Your task to perform on an android device: toggle notification dots Image 0: 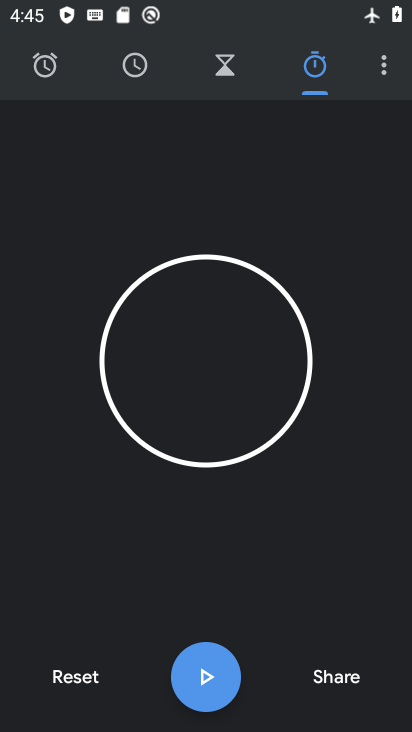
Step 0: press home button
Your task to perform on an android device: toggle notification dots Image 1: 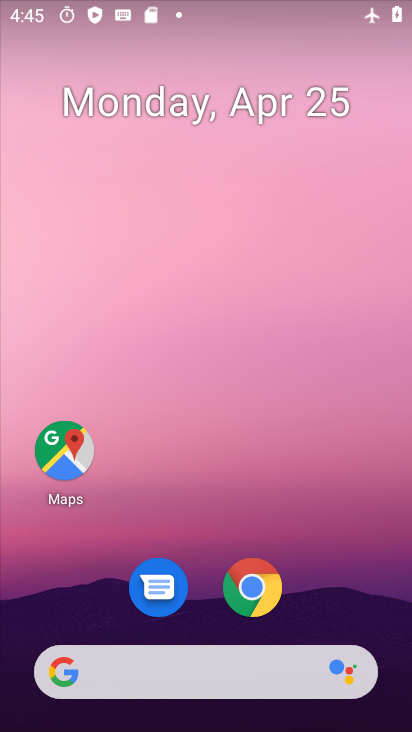
Step 1: drag from (289, 379) to (257, 83)
Your task to perform on an android device: toggle notification dots Image 2: 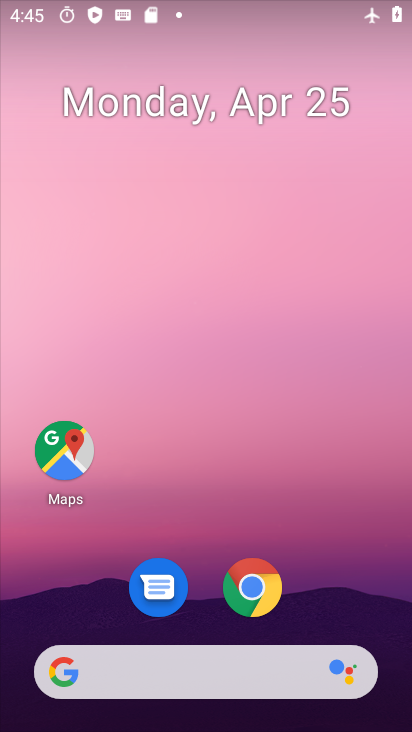
Step 2: drag from (327, 639) to (365, 136)
Your task to perform on an android device: toggle notification dots Image 3: 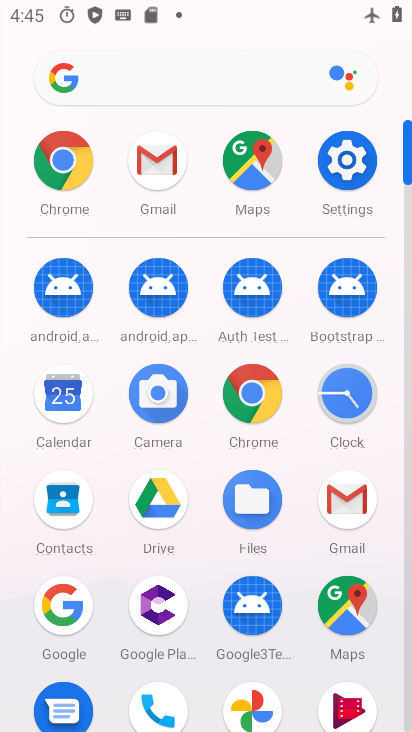
Step 3: click (346, 160)
Your task to perform on an android device: toggle notification dots Image 4: 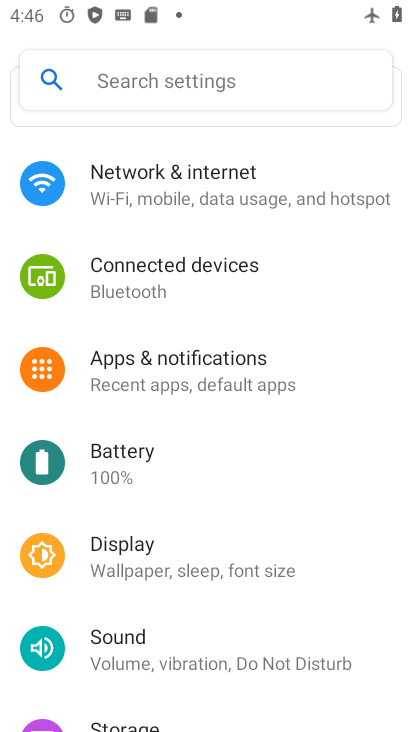
Step 4: click (150, 354)
Your task to perform on an android device: toggle notification dots Image 5: 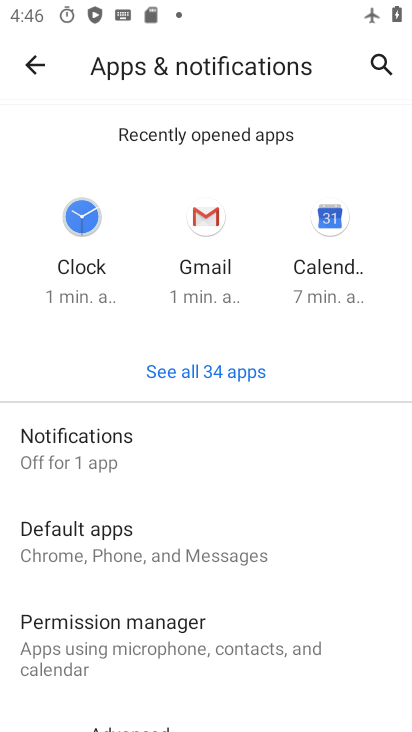
Step 5: click (112, 446)
Your task to perform on an android device: toggle notification dots Image 6: 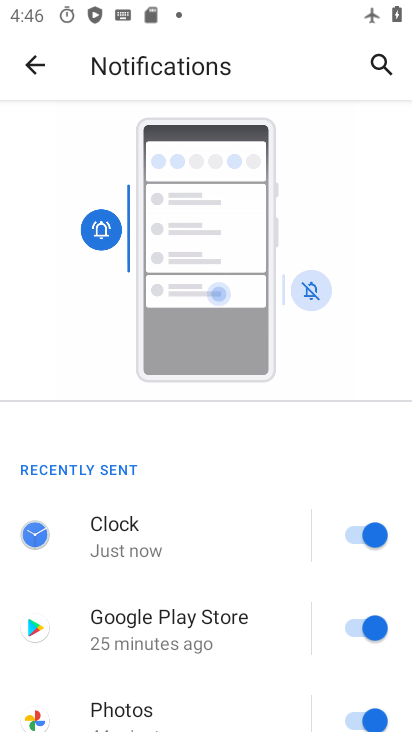
Step 6: drag from (250, 611) to (321, 23)
Your task to perform on an android device: toggle notification dots Image 7: 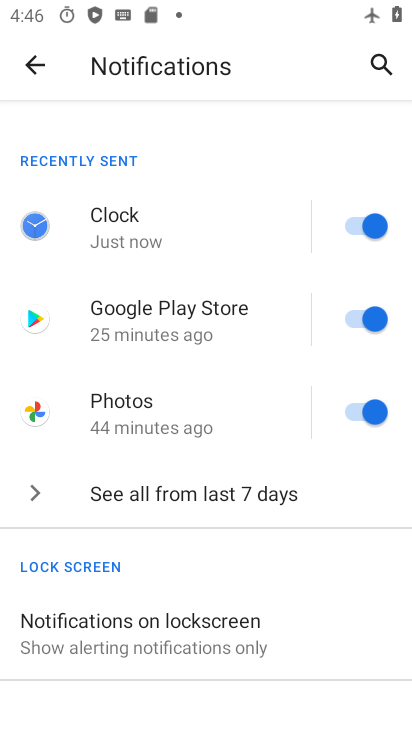
Step 7: drag from (202, 621) to (201, 102)
Your task to perform on an android device: toggle notification dots Image 8: 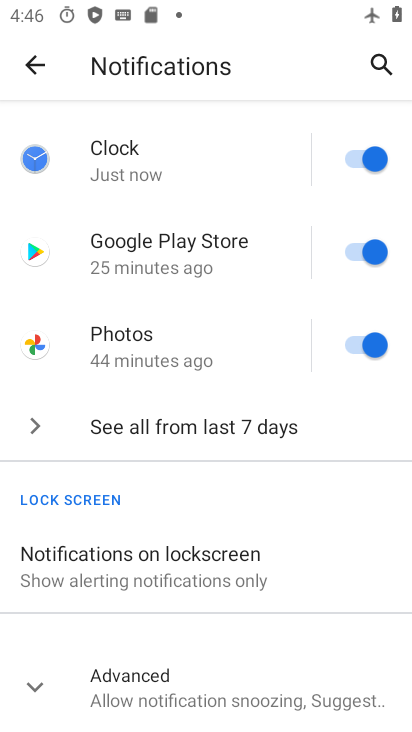
Step 8: click (142, 672)
Your task to perform on an android device: toggle notification dots Image 9: 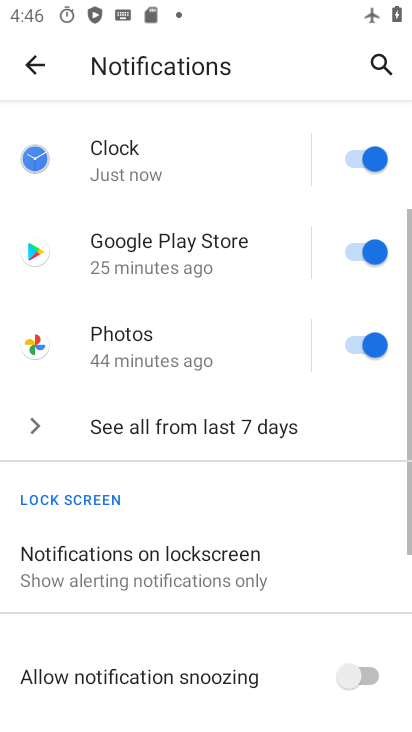
Step 9: drag from (259, 669) to (303, 164)
Your task to perform on an android device: toggle notification dots Image 10: 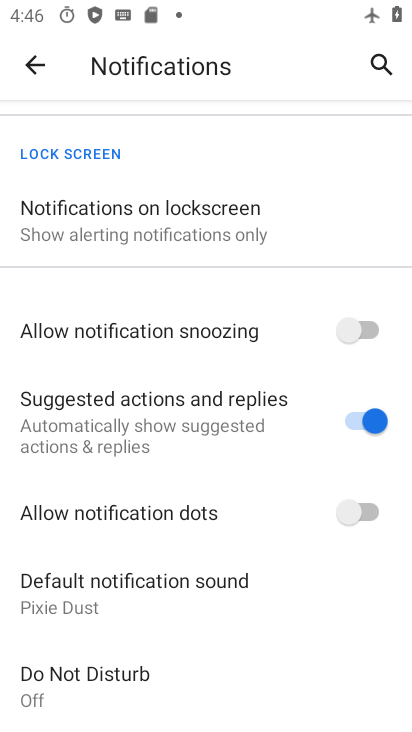
Step 10: click (281, 523)
Your task to perform on an android device: toggle notification dots Image 11: 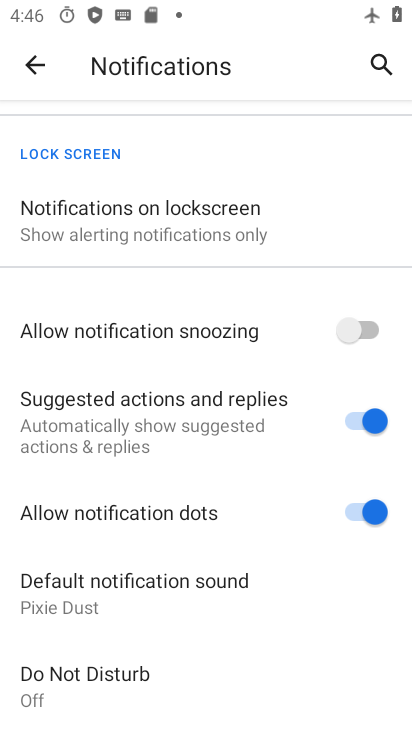
Step 11: task complete